Your task to perform on an android device: Go to ESPN.com Image 0: 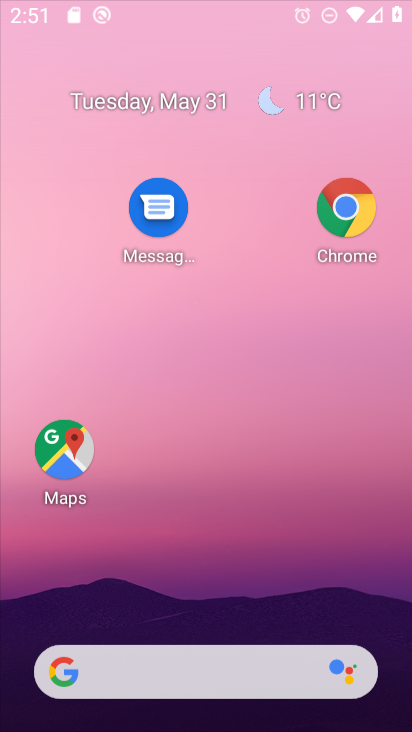
Step 0: click (247, 116)
Your task to perform on an android device: Go to ESPN.com Image 1: 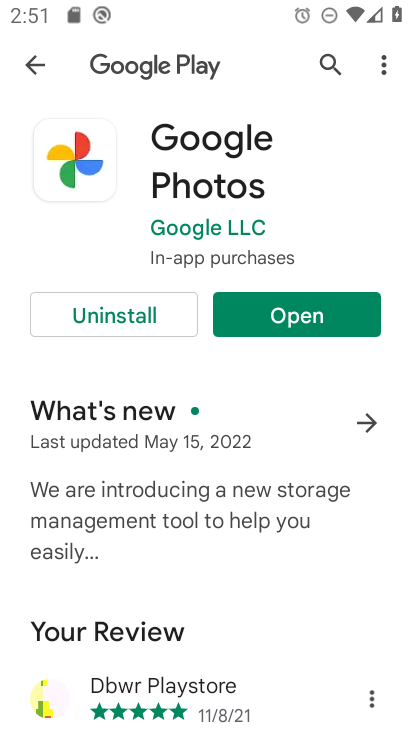
Step 1: press home button
Your task to perform on an android device: Go to ESPN.com Image 2: 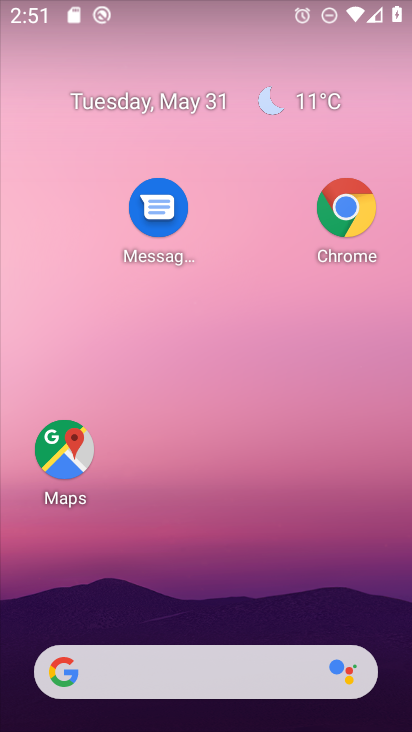
Step 2: click (170, 665)
Your task to perform on an android device: Go to ESPN.com Image 3: 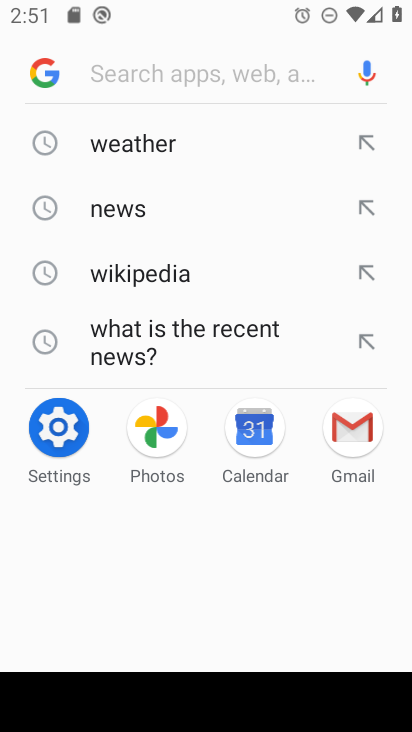
Step 3: type "ESPN.com"
Your task to perform on an android device: Go to ESPN.com Image 4: 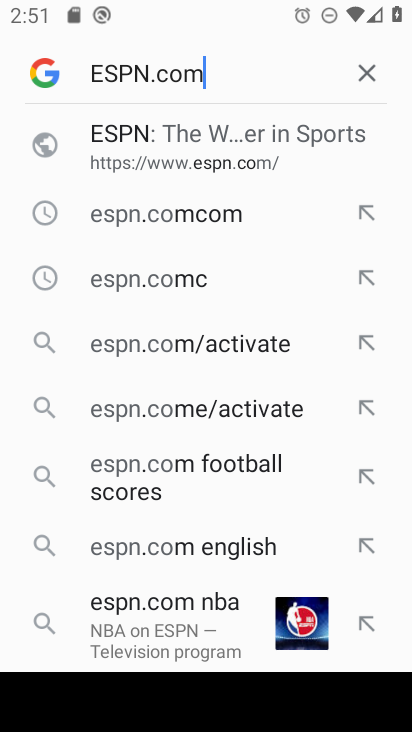
Step 4: type ""
Your task to perform on an android device: Go to ESPN.com Image 5: 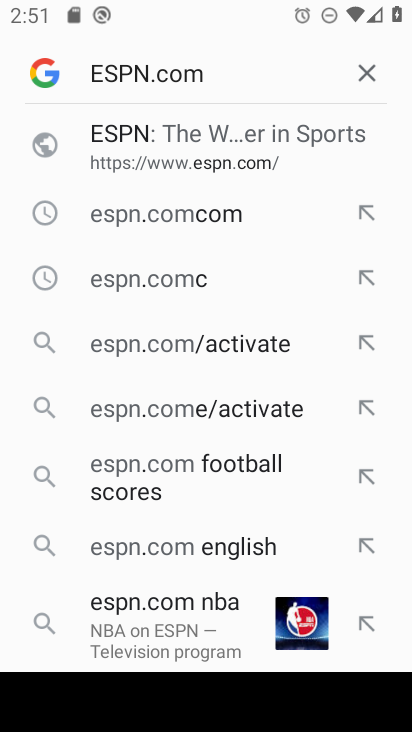
Step 5: click (196, 150)
Your task to perform on an android device: Go to ESPN.com Image 6: 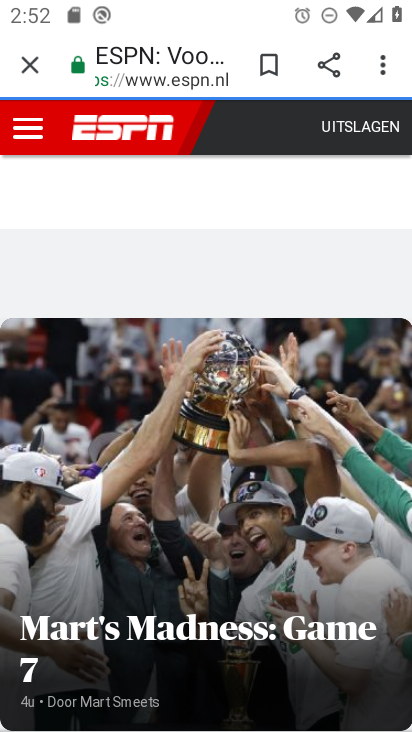
Step 6: task complete